Your task to perform on an android device: snooze an email in the gmail app Image 0: 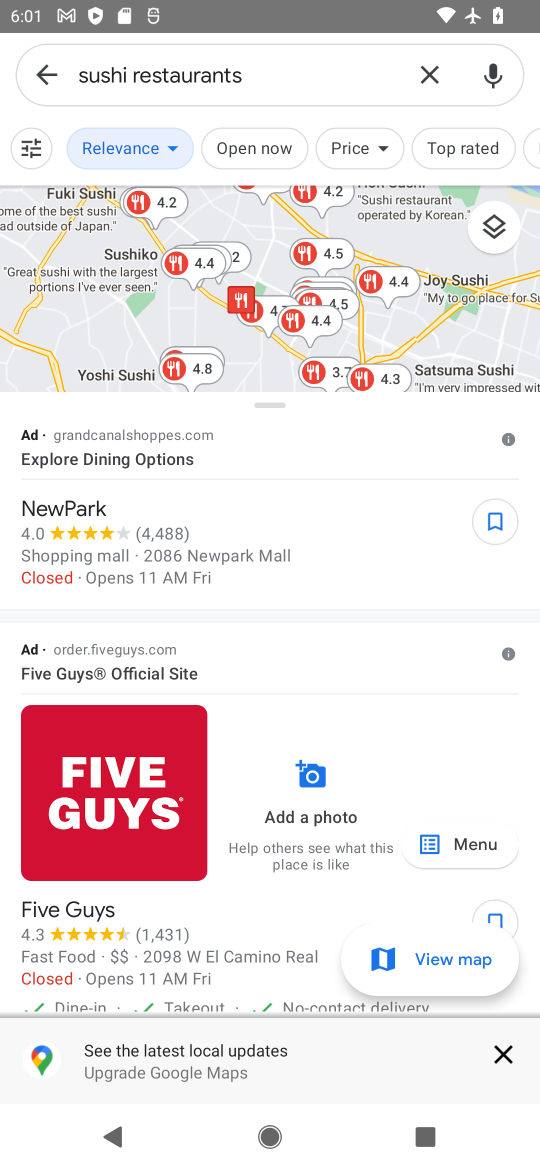
Step 0: press home button
Your task to perform on an android device: snooze an email in the gmail app Image 1: 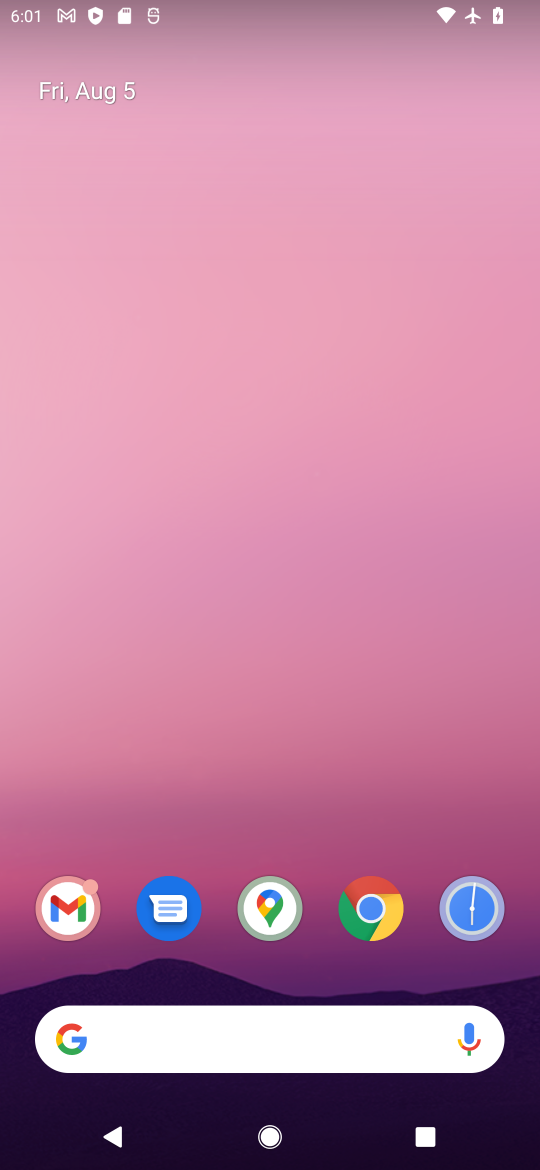
Step 1: click (65, 900)
Your task to perform on an android device: snooze an email in the gmail app Image 2: 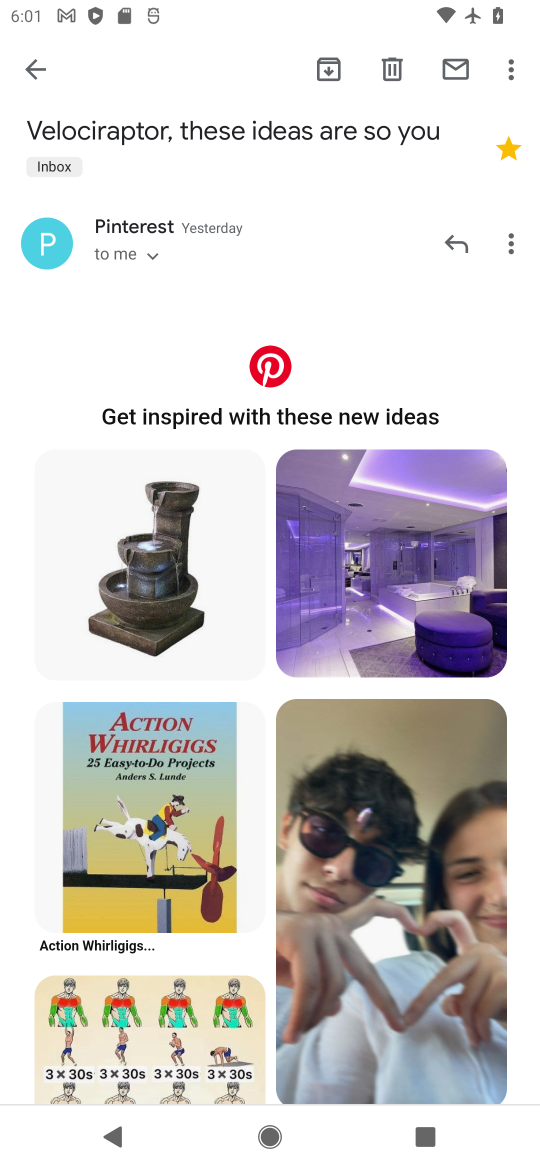
Step 2: click (20, 64)
Your task to perform on an android device: snooze an email in the gmail app Image 3: 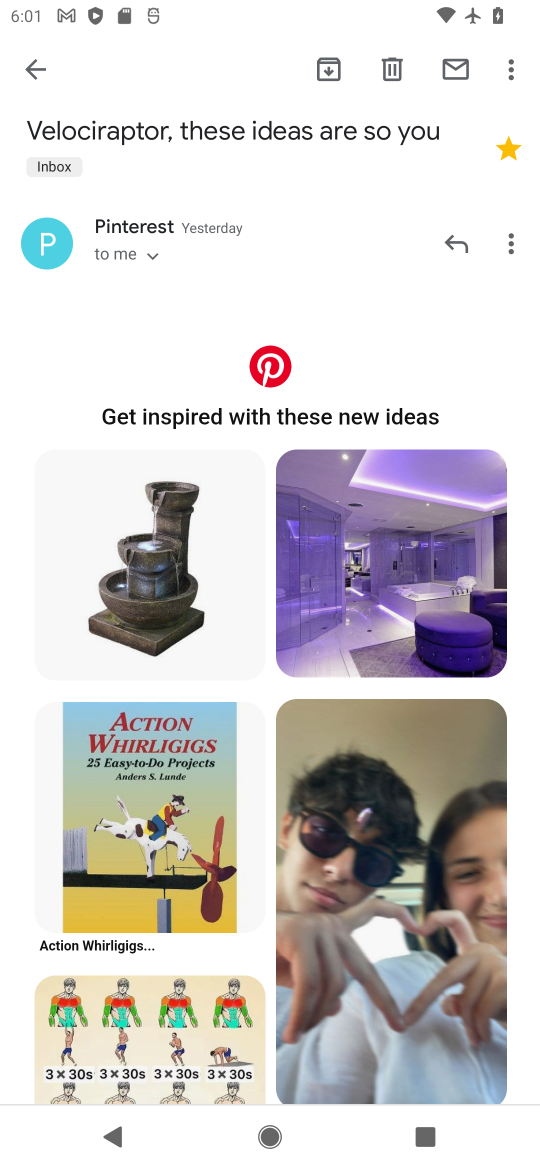
Step 3: click (37, 67)
Your task to perform on an android device: snooze an email in the gmail app Image 4: 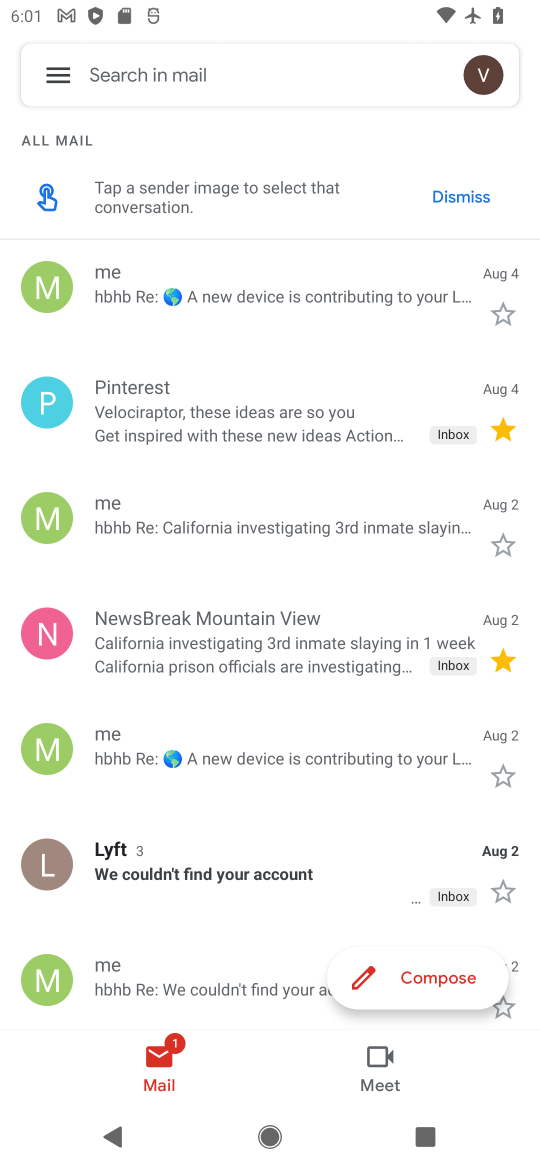
Step 4: click (282, 444)
Your task to perform on an android device: snooze an email in the gmail app Image 5: 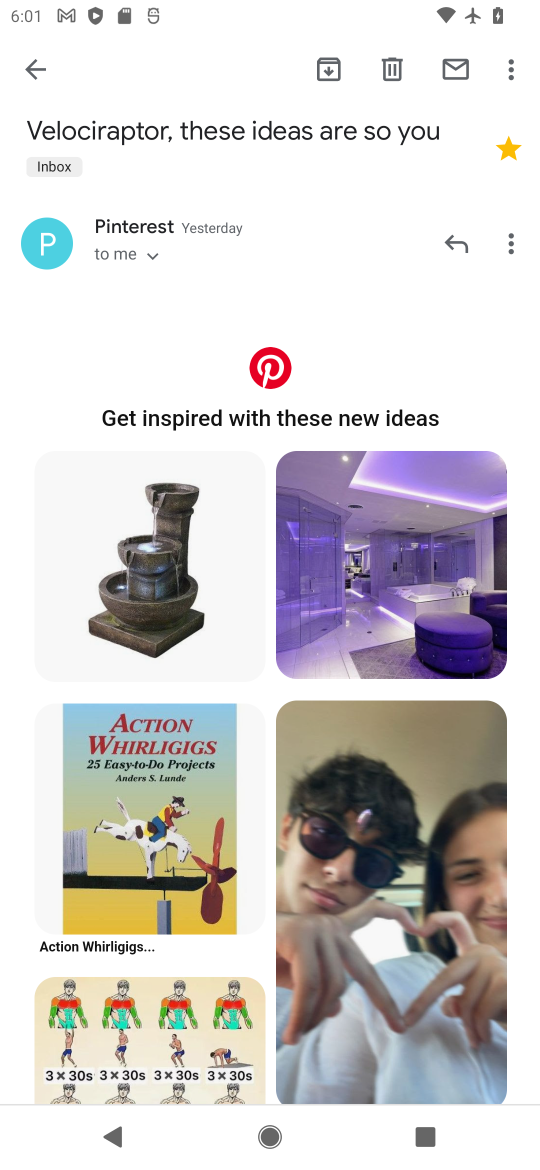
Step 5: click (509, 70)
Your task to perform on an android device: snooze an email in the gmail app Image 6: 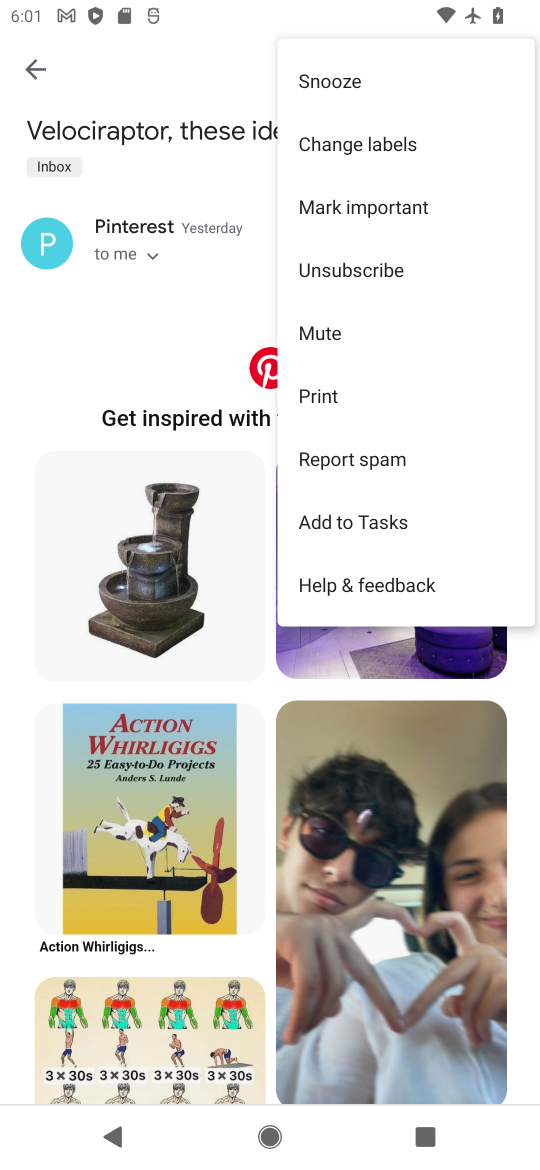
Step 6: click (327, 82)
Your task to perform on an android device: snooze an email in the gmail app Image 7: 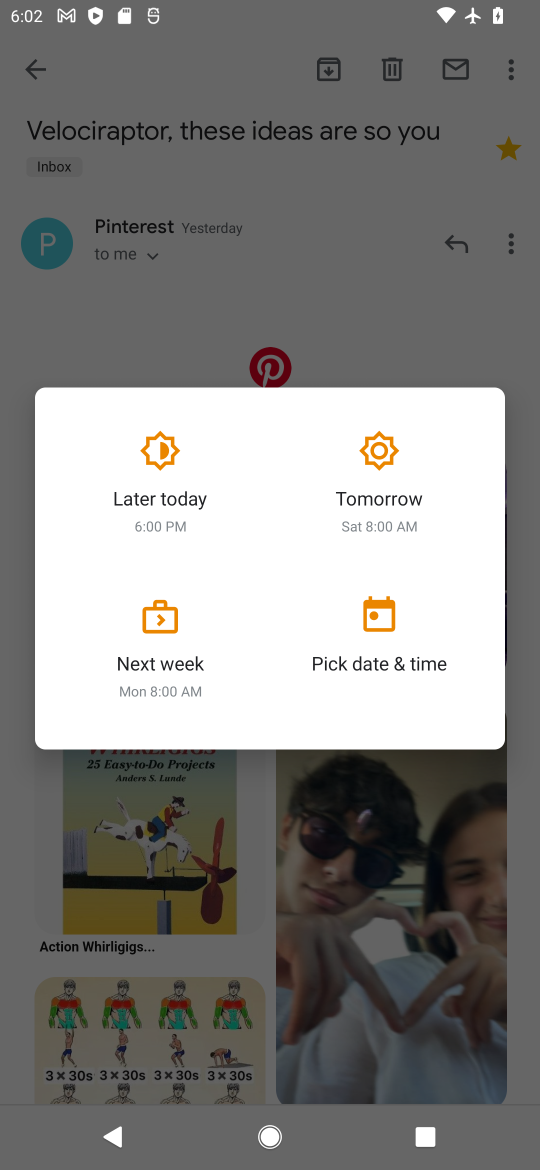
Step 7: click (168, 503)
Your task to perform on an android device: snooze an email in the gmail app Image 8: 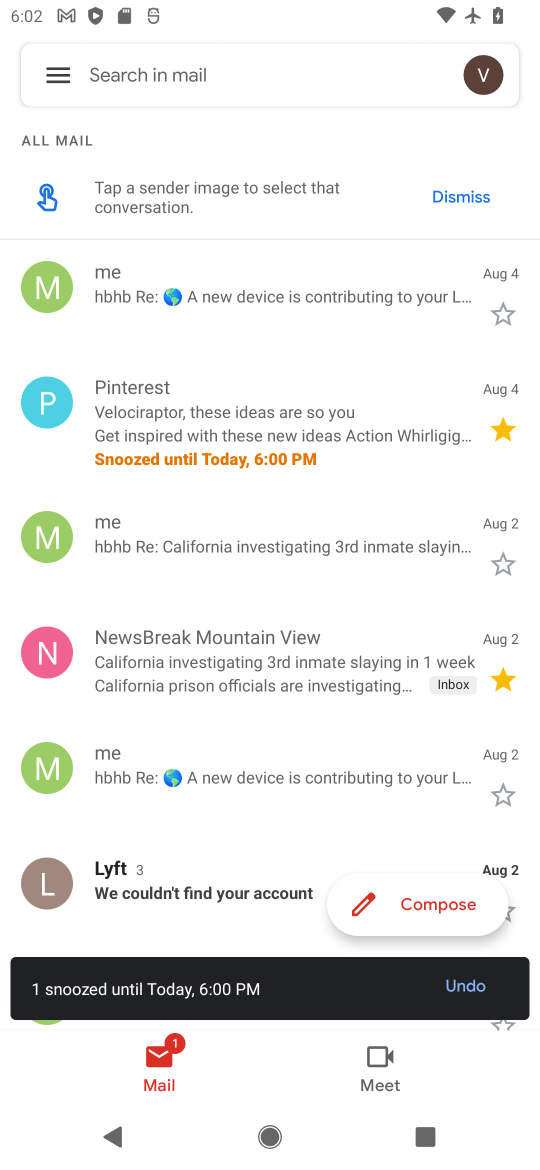
Step 8: task complete